Your task to perform on an android device: Open Chrome and go to the settings page Image 0: 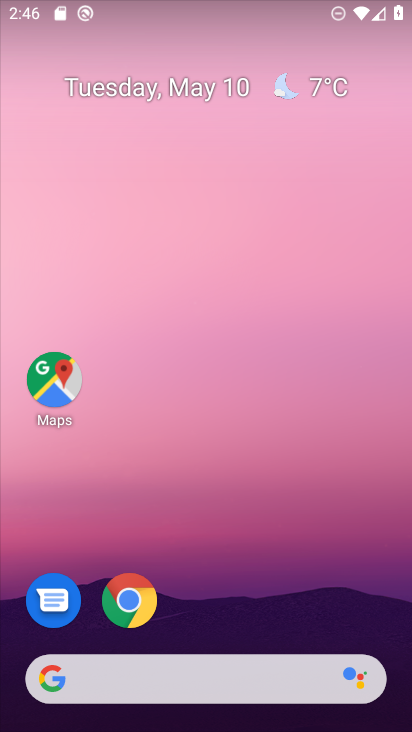
Step 0: drag from (241, 656) to (192, 235)
Your task to perform on an android device: Open Chrome and go to the settings page Image 1: 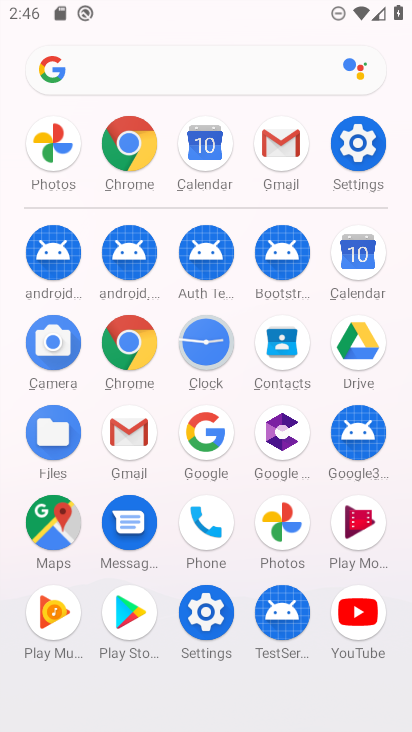
Step 1: click (123, 143)
Your task to perform on an android device: Open Chrome and go to the settings page Image 2: 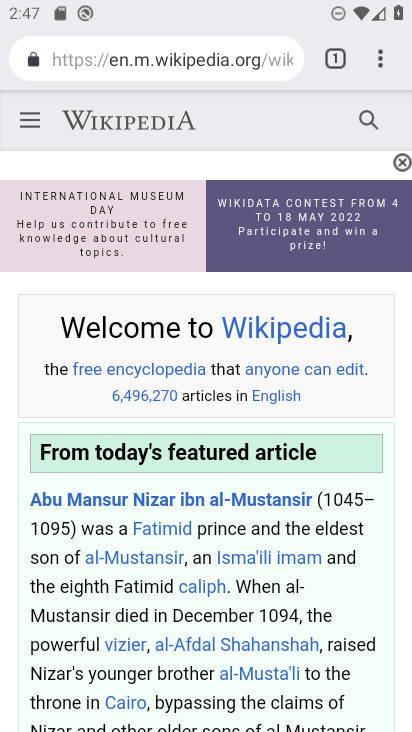
Step 2: click (382, 56)
Your task to perform on an android device: Open Chrome and go to the settings page Image 3: 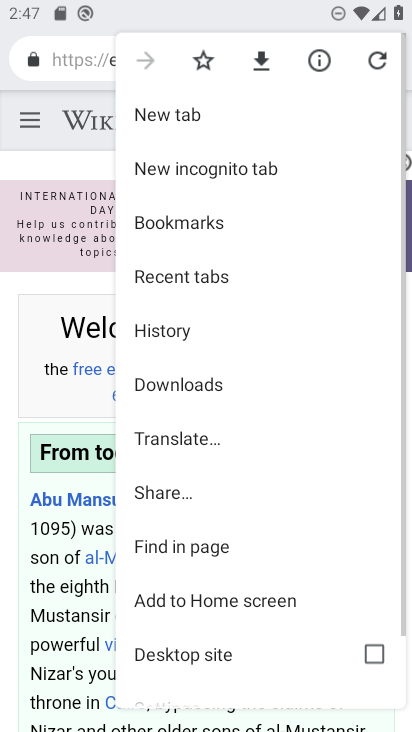
Step 3: drag from (168, 584) to (222, 202)
Your task to perform on an android device: Open Chrome and go to the settings page Image 4: 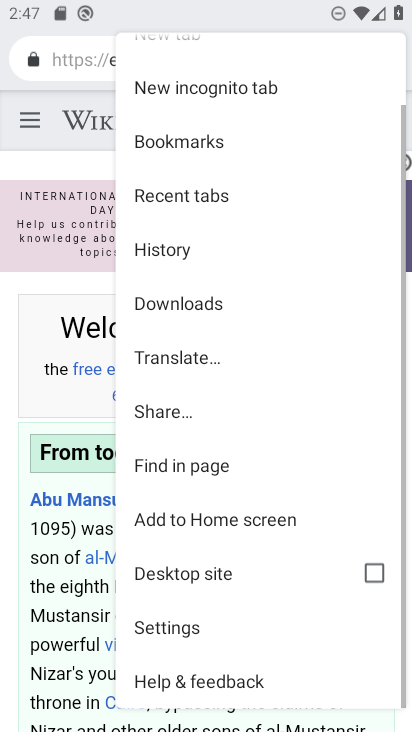
Step 4: click (203, 628)
Your task to perform on an android device: Open Chrome and go to the settings page Image 5: 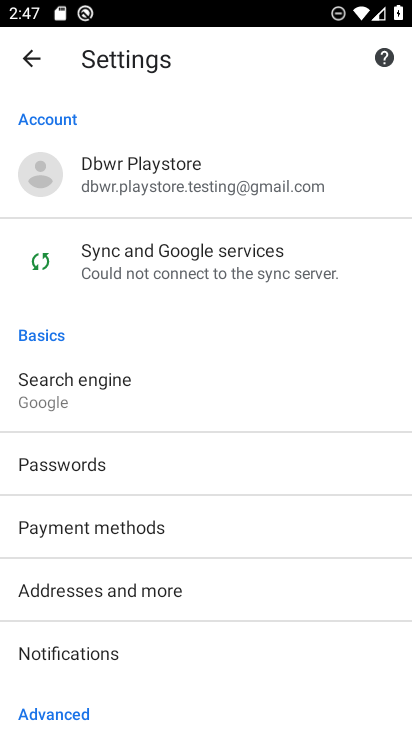
Step 5: task complete